Your task to perform on an android device: Go to internet settings Image 0: 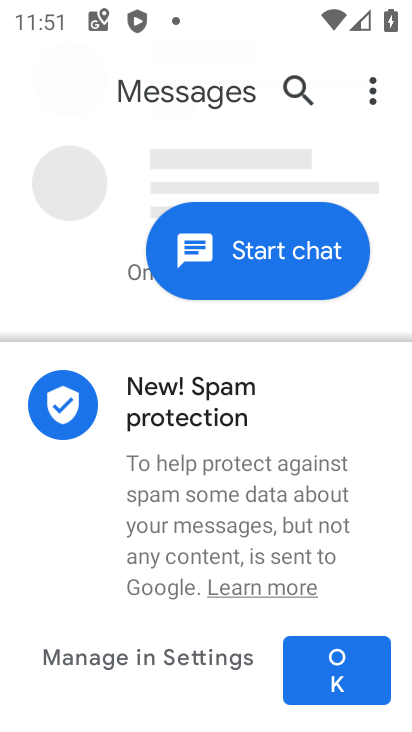
Step 0: press home button
Your task to perform on an android device: Go to internet settings Image 1: 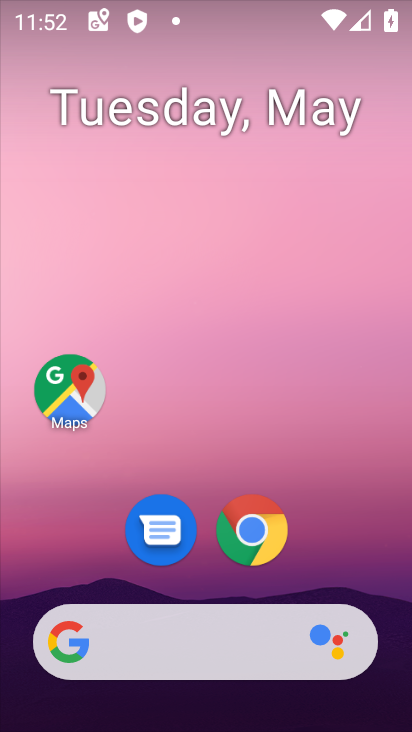
Step 1: drag from (201, 589) to (237, 175)
Your task to perform on an android device: Go to internet settings Image 2: 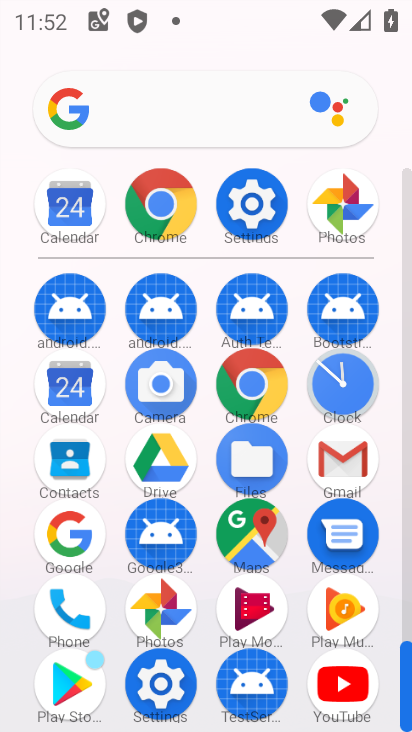
Step 2: click (252, 207)
Your task to perform on an android device: Go to internet settings Image 3: 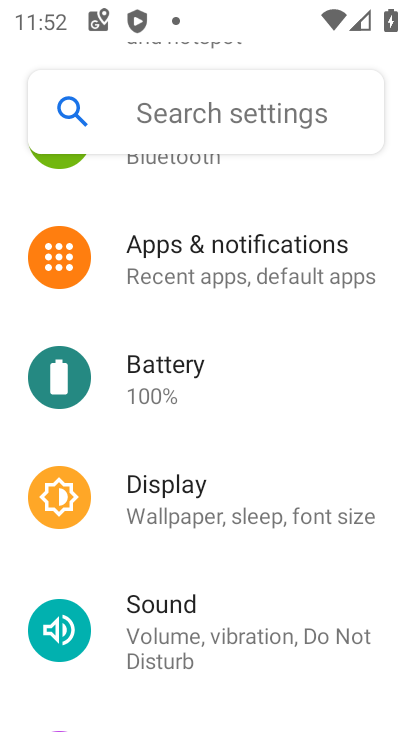
Step 3: drag from (214, 226) to (196, 638)
Your task to perform on an android device: Go to internet settings Image 4: 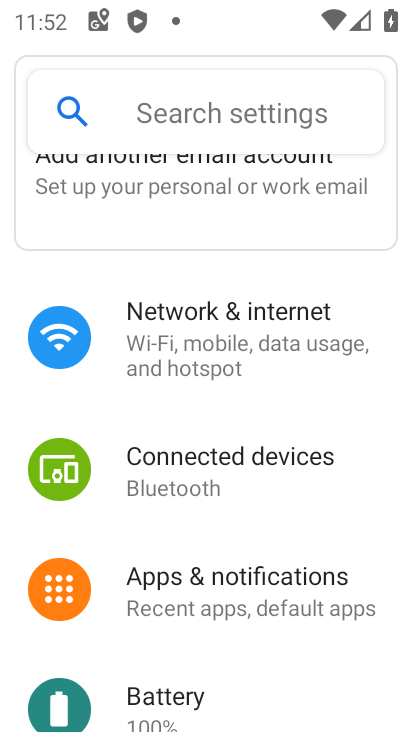
Step 4: click (214, 364)
Your task to perform on an android device: Go to internet settings Image 5: 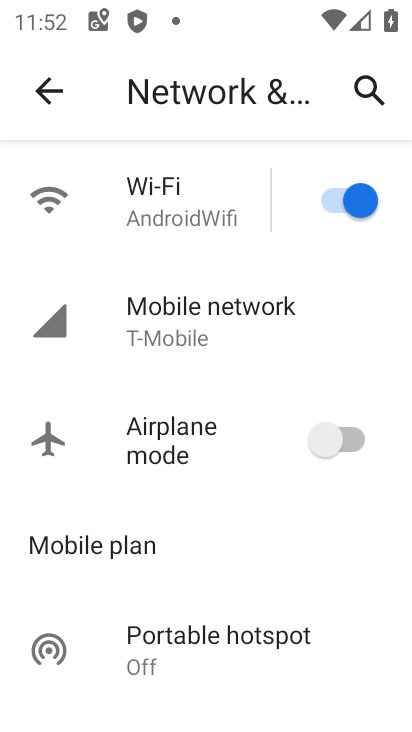
Step 5: task complete